Your task to perform on an android device: Open maps Image 0: 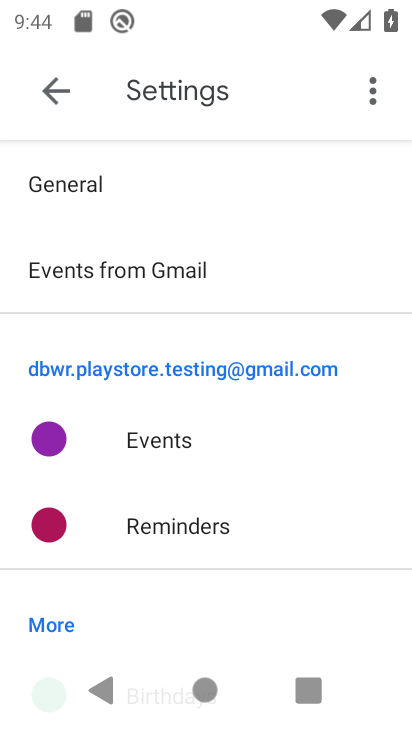
Step 0: press home button
Your task to perform on an android device: Open maps Image 1: 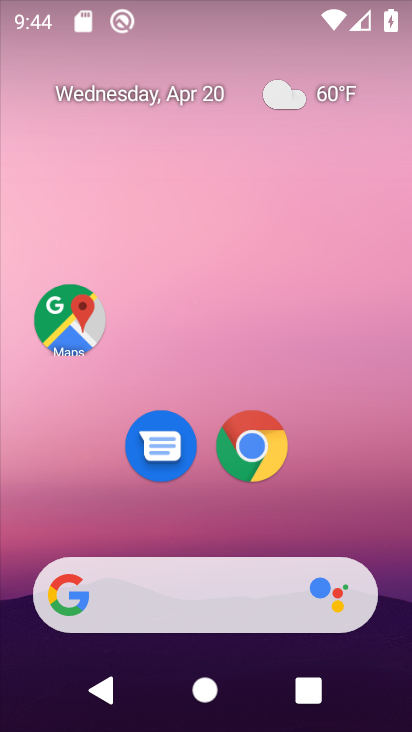
Step 1: drag from (340, 489) to (356, 153)
Your task to perform on an android device: Open maps Image 2: 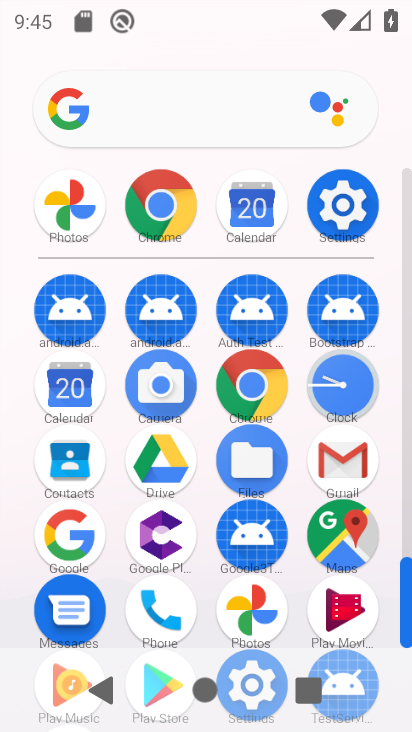
Step 2: click (339, 531)
Your task to perform on an android device: Open maps Image 3: 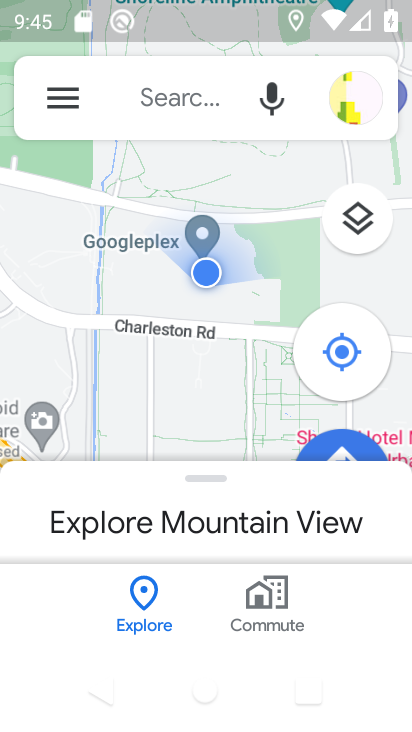
Step 3: task complete